Your task to perform on an android device: Open privacy settings Image 0: 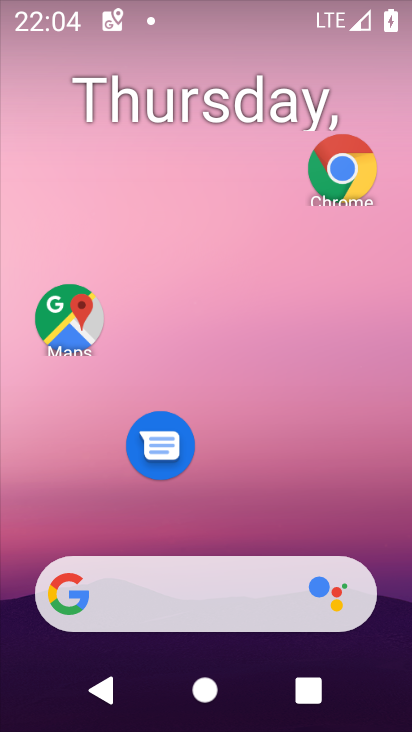
Step 0: click (186, 52)
Your task to perform on an android device: Open privacy settings Image 1: 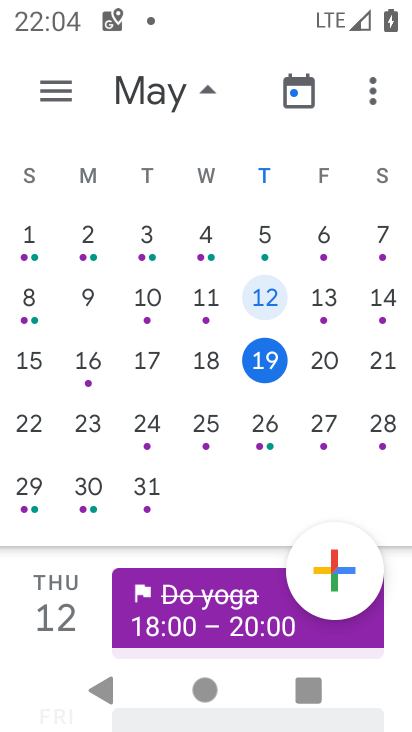
Step 1: press home button
Your task to perform on an android device: Open privacy settings Image 2: 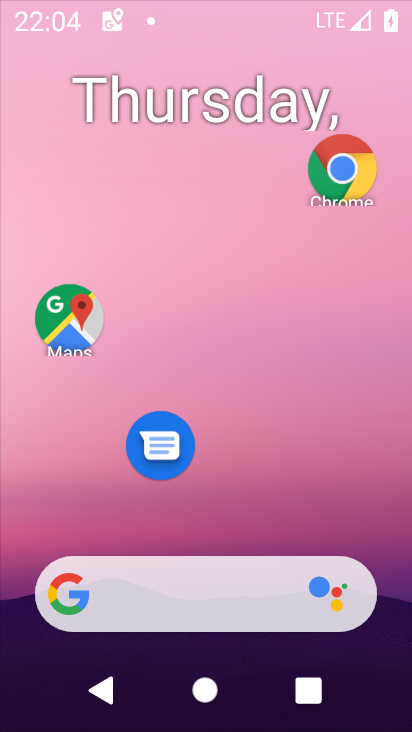
Step 2: drag from (199, 562) to (200, 84)
Your task to perform on an android device: Open privacy settings Image 3: 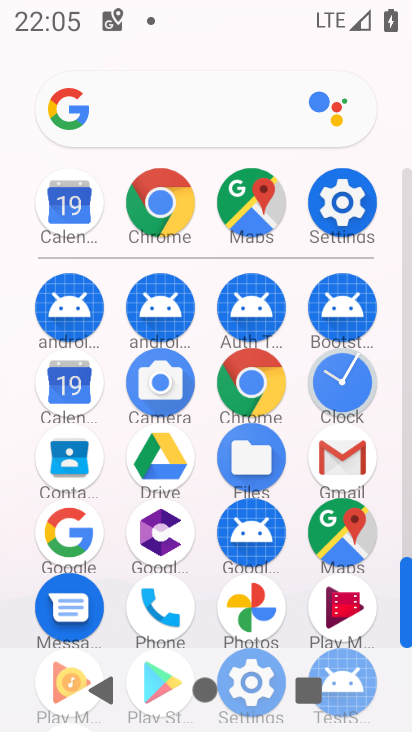
Step 3: click (347, 214)
Your task to perform on an android device: Open privacy settings Image 4: 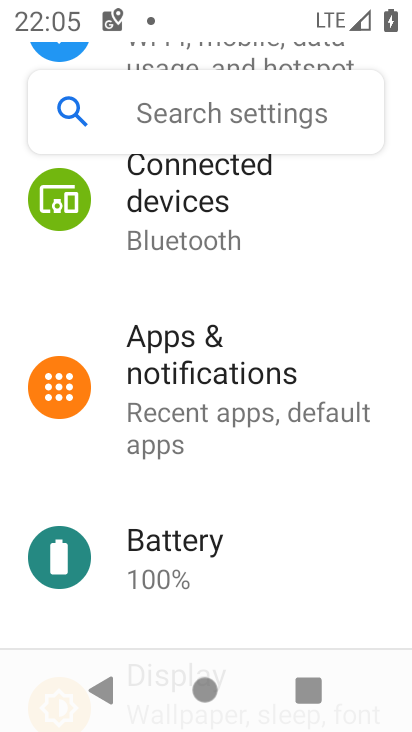
Step 4: drag from (183, 553) to (309, 53)
Your task to perform on an android device: Open privacy settings Image 5: 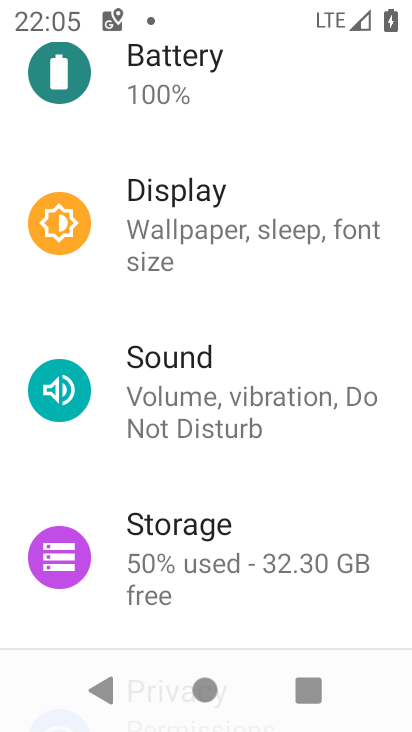
Step 5: drag from (208, 527) to (316, 46)
Your task to perform on an android device: Open privacy settings Image 6: 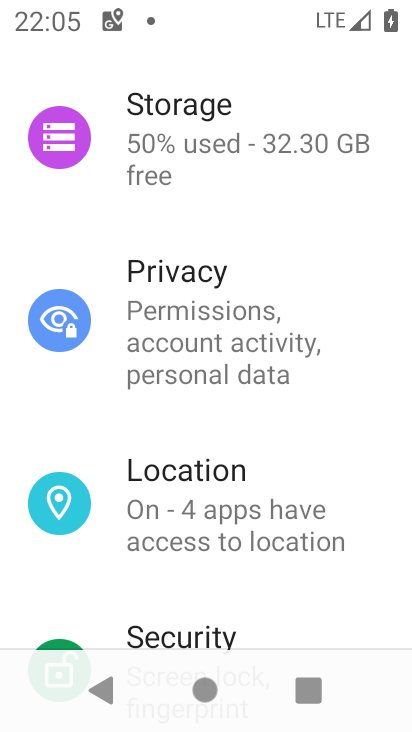
Step 6: click (204, 323)
Your task to perform on an android device: Open privacy settings Image 7: 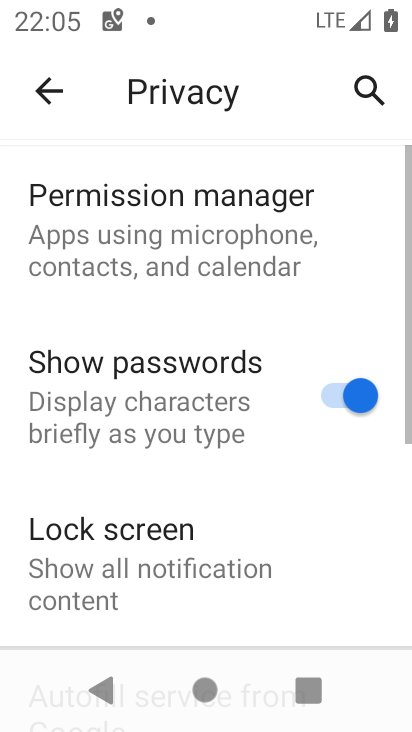
Step 7: task complete